Your task to perform on an android device: Open settings on Google Maps Image 0: 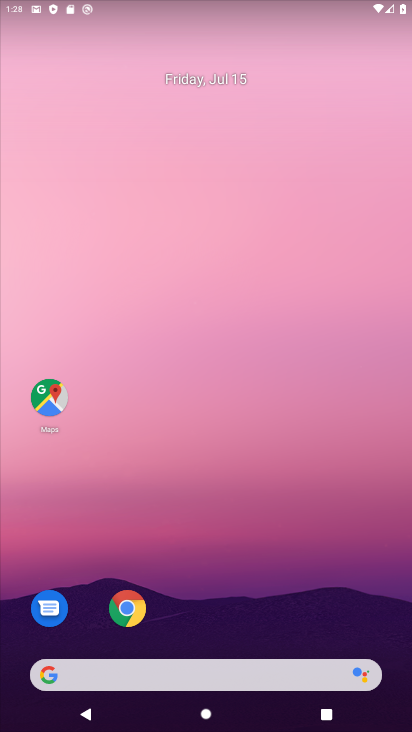
Step 0: click (43, 393)
Your task to perform on an android device: Open settings on Google Maps Image 1: 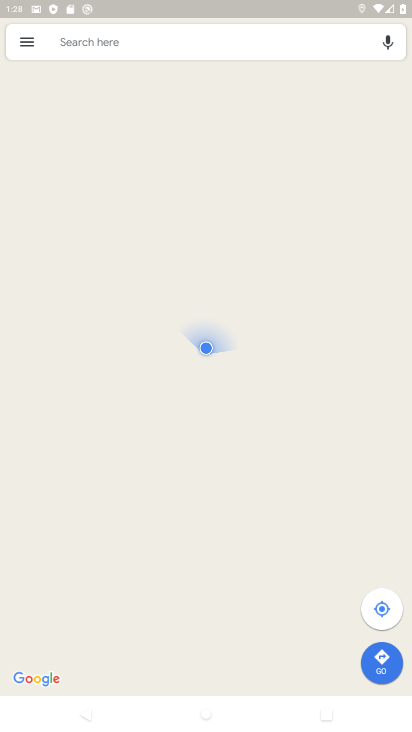
Step 1: click (26, 47)
Your task to perform on an android device: Open settings on Google Maps Image 2: 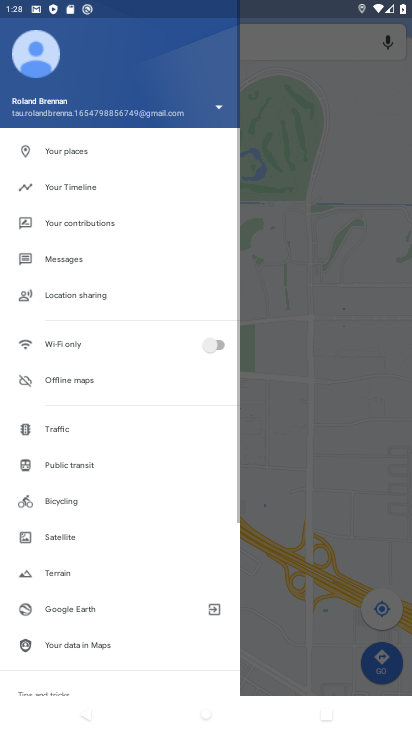
Step 2: drag from (56, 629) to (4, 395)
Your task to perform on an android device: Open settings on Google Maps Image 3: 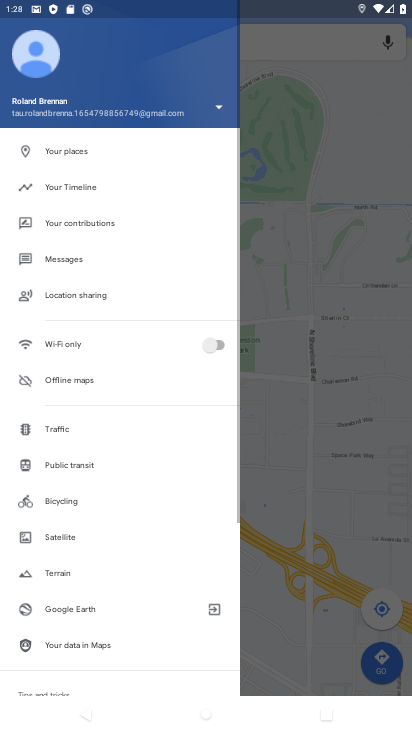
Step 3: drag from (94, 598) to (39, 9)
Your task to perform on an android device: Open settings on Google Maps Image 4: 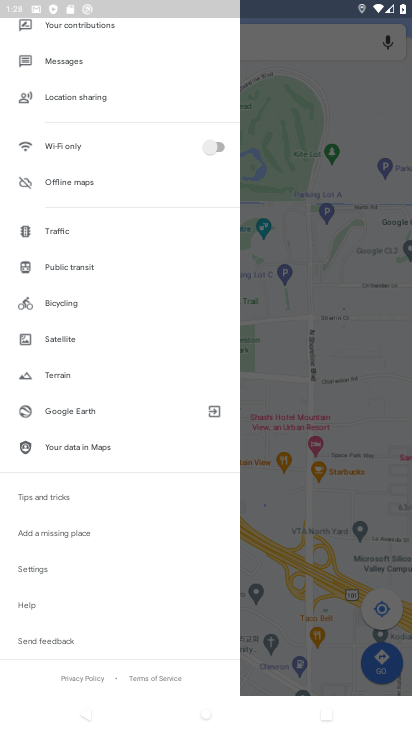
Step 4: click (29, 576)
Your task to perform on an android device: Open settings on Google Maps Image 5: 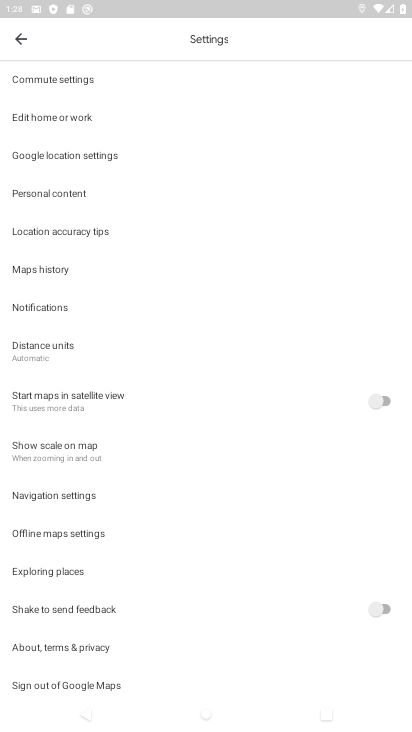
Step 5: task complete